Your task to perform on an android device: set the timer Image 0: 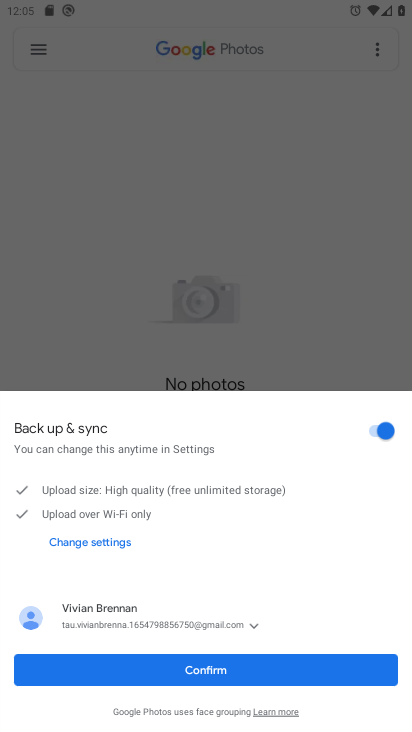
Step 0: press home button
Your task to perform on an android device: set the timer Image 1: 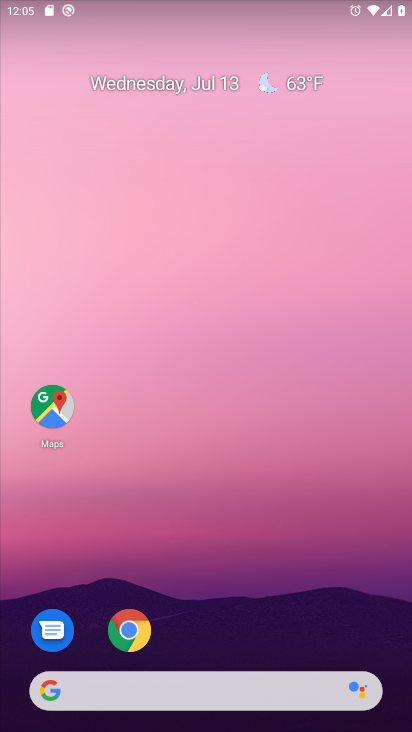
Step 1: drag from (190, 673) to (173, 93)
Your task to perform on an android device: set the timer Image 2: 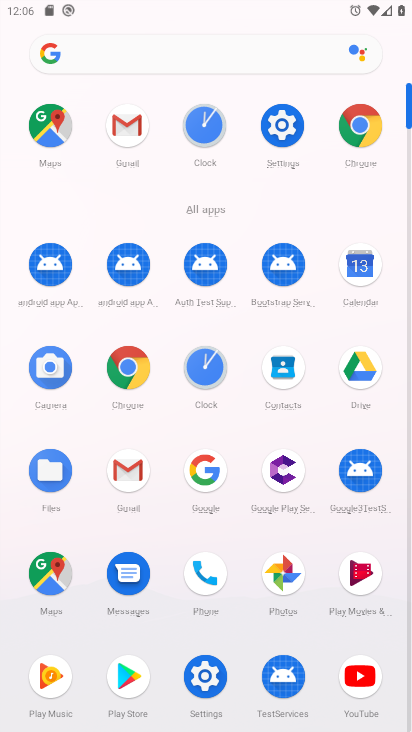
Step 2: click (201, 371)
Your task to perform on an android device: set the timer Image 3: 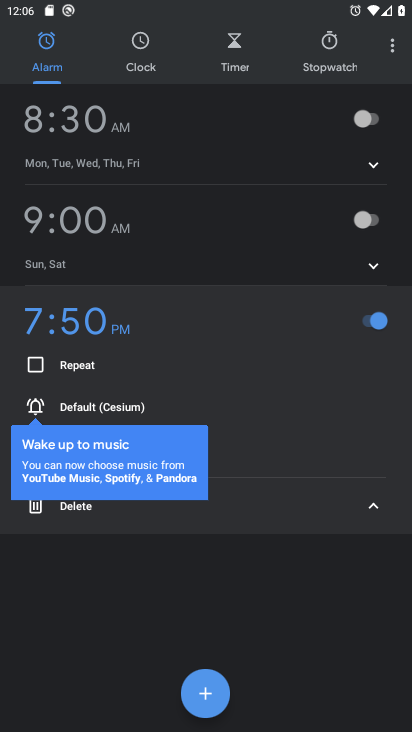
Step 3: click (240, 58)
Your task to perform on an android device: set the timer Image 4: 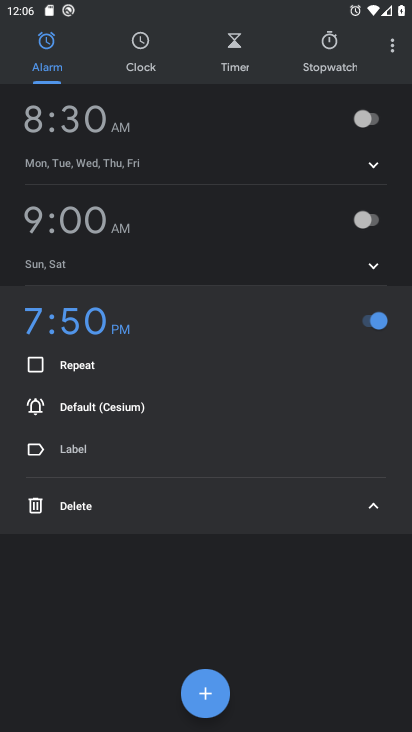
Step 4: click (234, 73)
Your task to perform on an android device: set the timer Image 5: 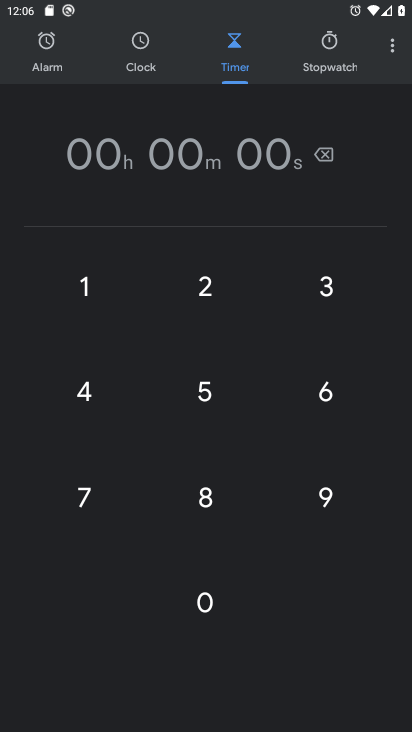
Step 5: click (114, 394)
Your task to perform on an android device: set the timer Image 6: 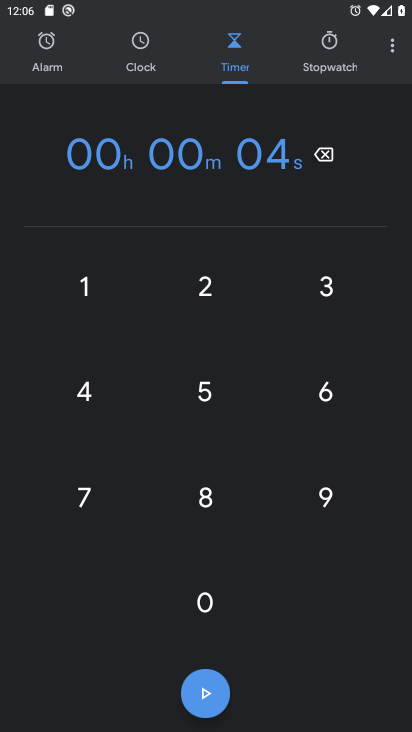
Step 6: click (188, 394)
Your task to perform on an android device: set the timer Image 7: 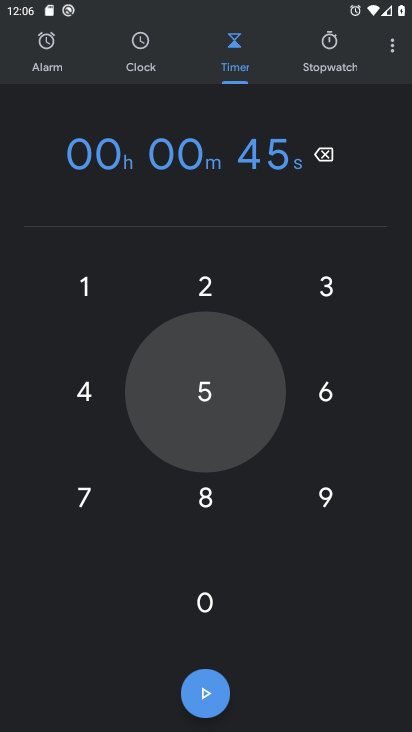
Step 7: click (297, 391)
Your task to perform on an android device: set the timer Image 8: 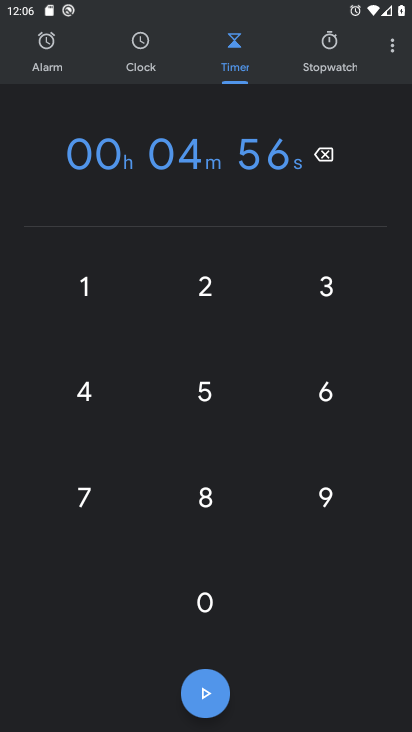
Step 8: click (198, 724)
Your task to perform on an android device: set the timer Image 9: 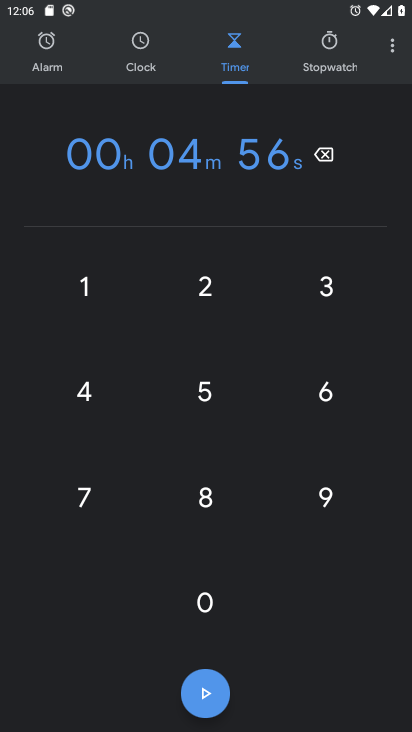
Step 9: click (208, 697)
Your task to perform on an android device: set the timer Image 10: 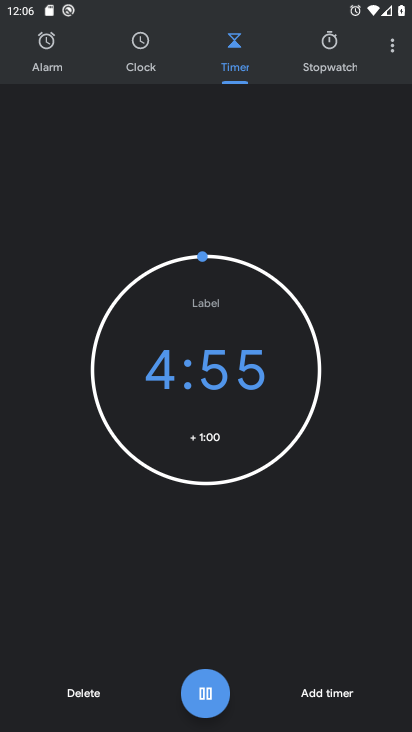
Step 10: task complete